Your task to perform on an android device: What is the recent news? Image 0: 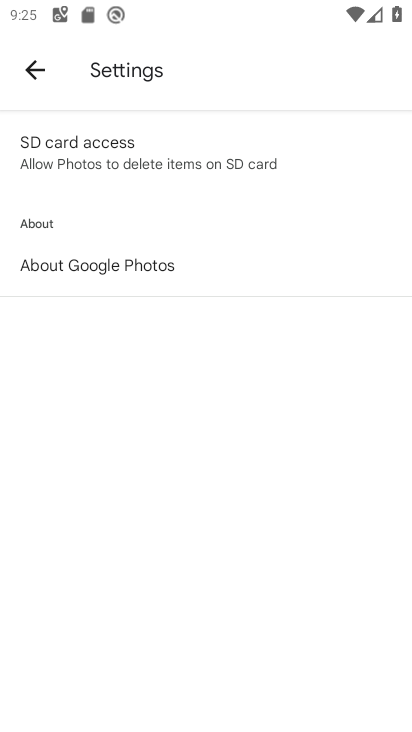
Step 0: press home button
Your task to perform on an android device: What is the recent news? Image 1: 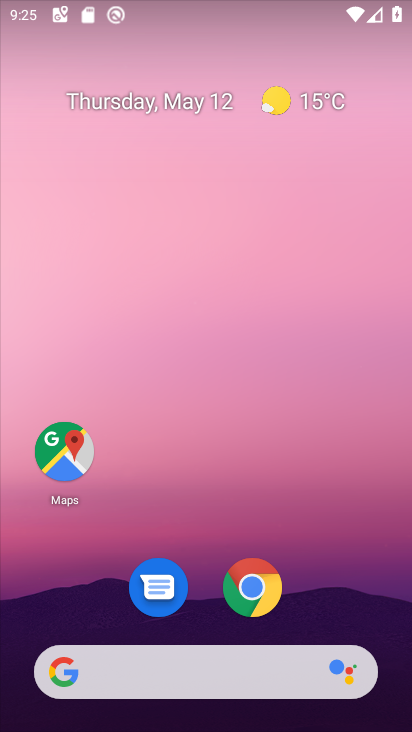
Step 1: drag from (383, 636) to (286, 180)
Your task to perform on an android device: What is the recent news? Image 2: 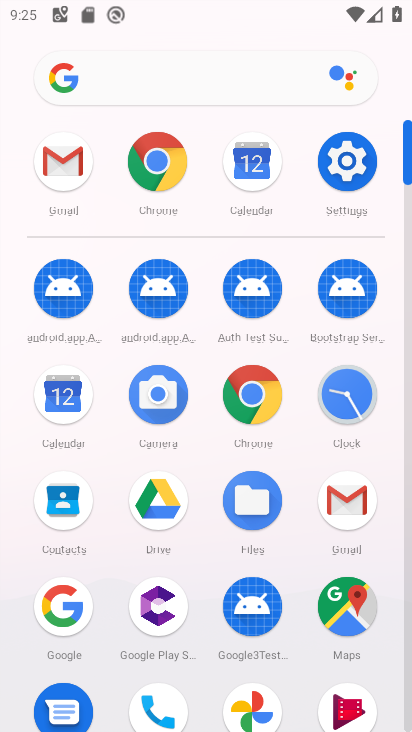
Step 2: click (249, 417)
Your task to perform on an android device: What is the recent news? Image 3: 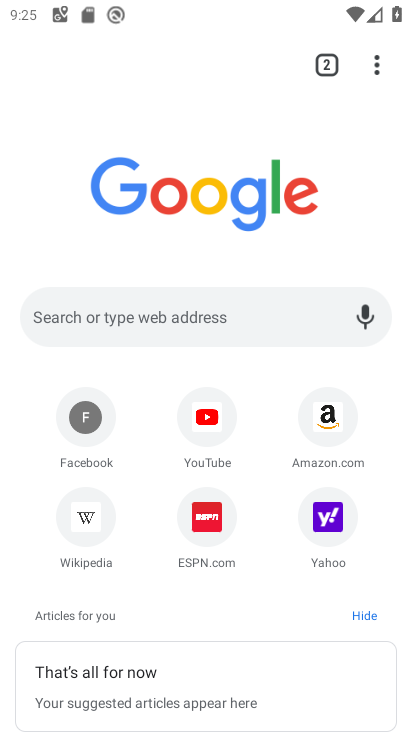
Step 3: drag from (234, 576) to (261, 116)
Your task to perform on an android device: What is the recent news? Image 4: 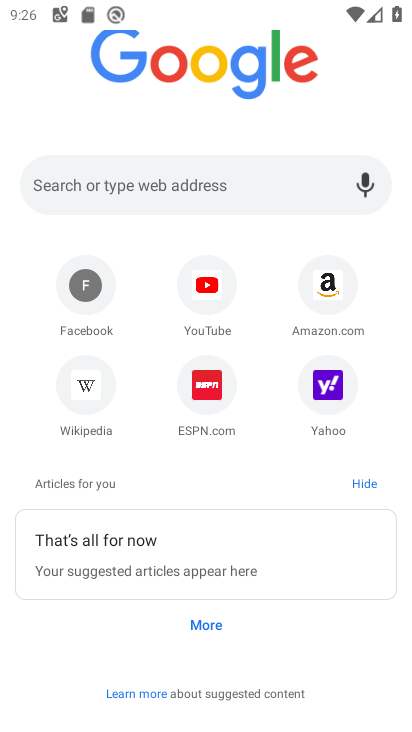
Step 4: click (200, 635)
Your task to perform on an android device: What is the recent news? Image 5: 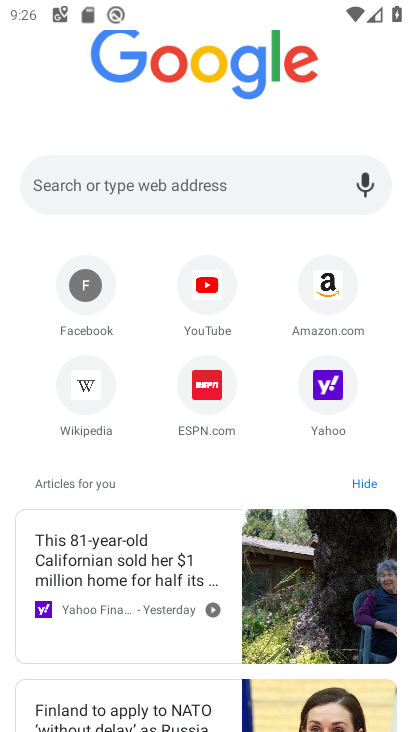
Step 5: click (155, 643)
Your task to perform on an android device: What is the recent news? Image 6: 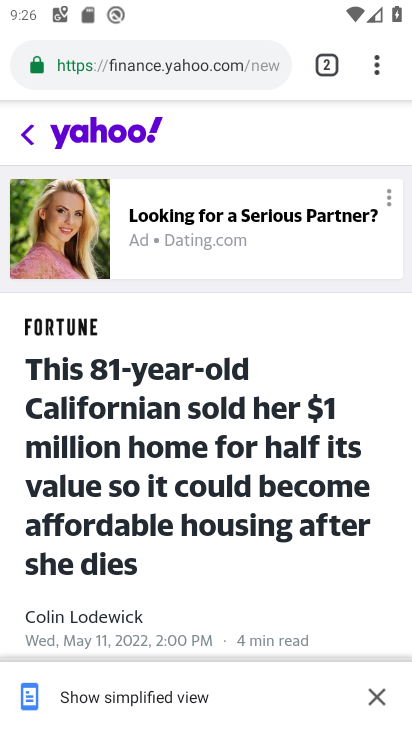
Step 6: task complete